Your task to perform on an android device: Open Chrome and go to settings Image 0: 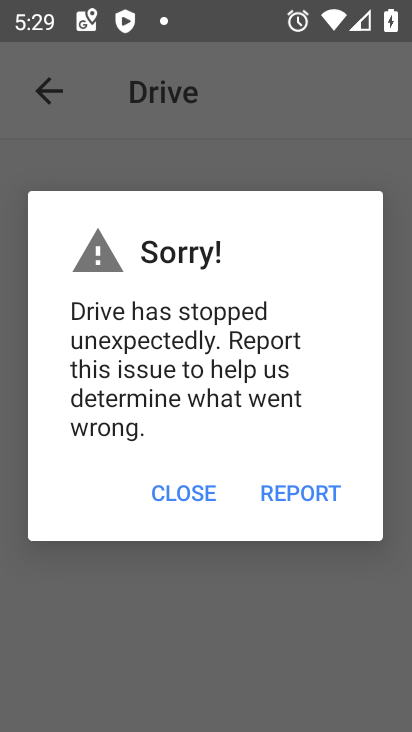
Step 0: press home button
Your task to perform on an android device: Open Chrome and go to settings Image 1: 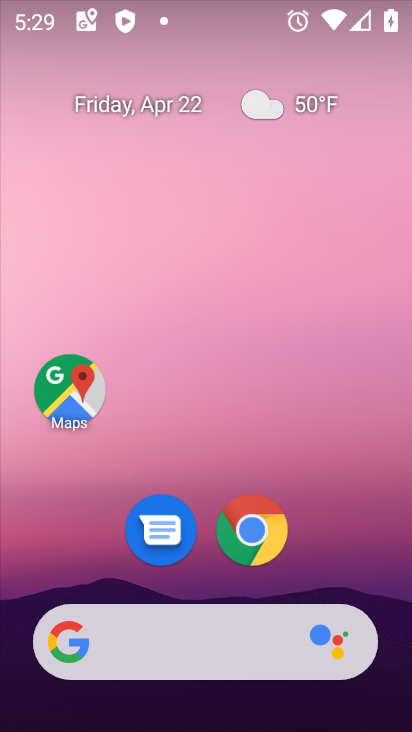
Step 1: drag from (347, 528) to (381, 151)
Your task to perform on an android device: Open Chrome and go to settings Image 2: 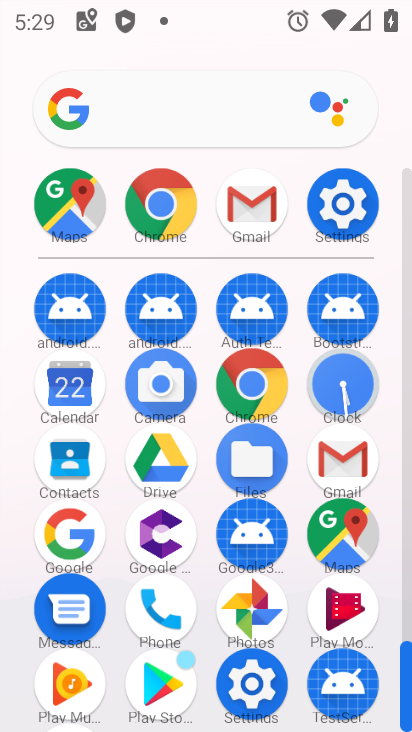
Step 2: click (259, 385)
Your task to perform on an android device: Open Chrome and go to settings Image 3: 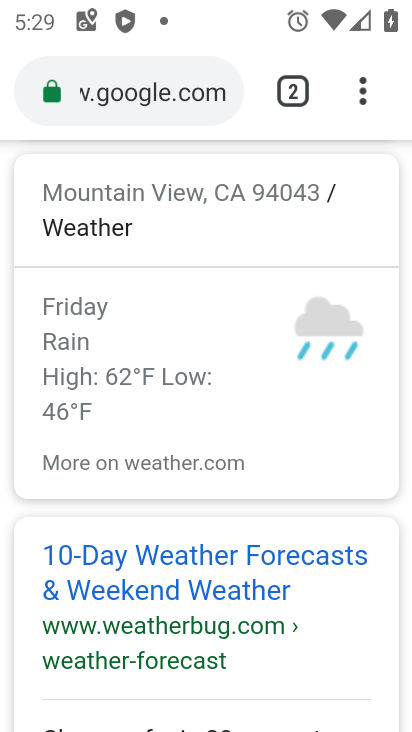
Step 3: task complete